Your task to perform on an android device: move an email to a new category in the gmail app Image 0: 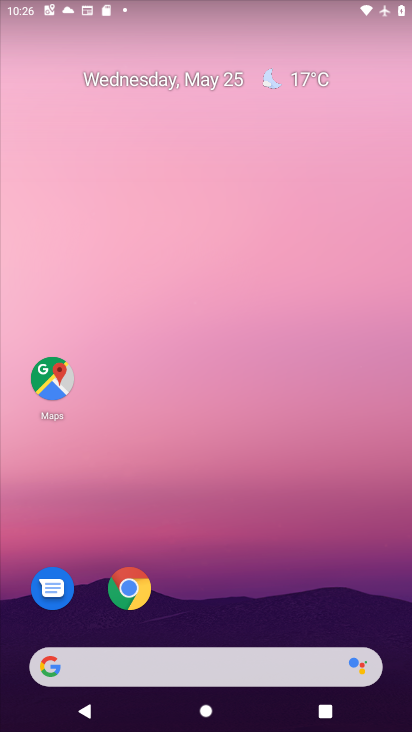
Step 0: drag from (377, 538) to (356, 189)
Your task to perform on an android device: move an email to a new category in the gmail app Image 1: 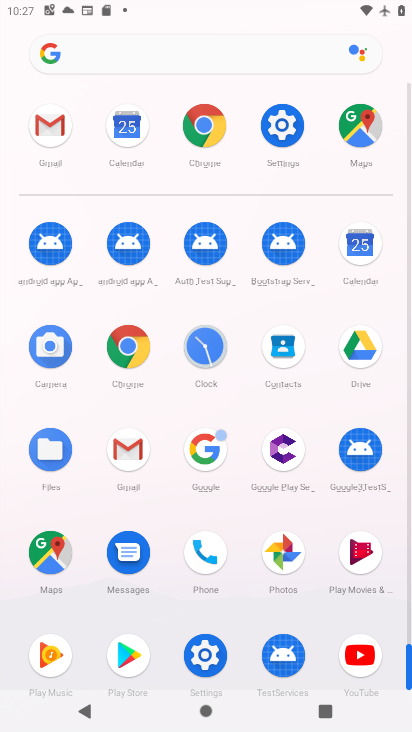
Step 1: click (134, 456)
Your task to perform on an android device: move an email to a new category in the gmail app Image 2: 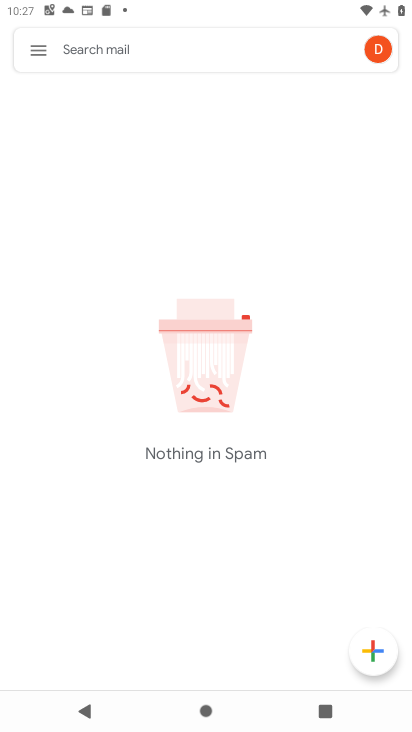
Step 2: click (39, 56)
Your task to perform on an android device: move an email to a new category in the gmail app Image 3: 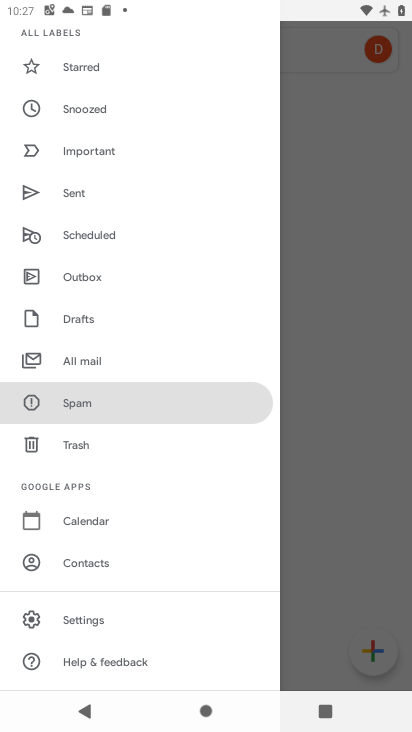
Step 3: drag from (206, 552) to (199, 400)
Your task to perform on an android device: move an email to a new category in the gmail app Image 4: 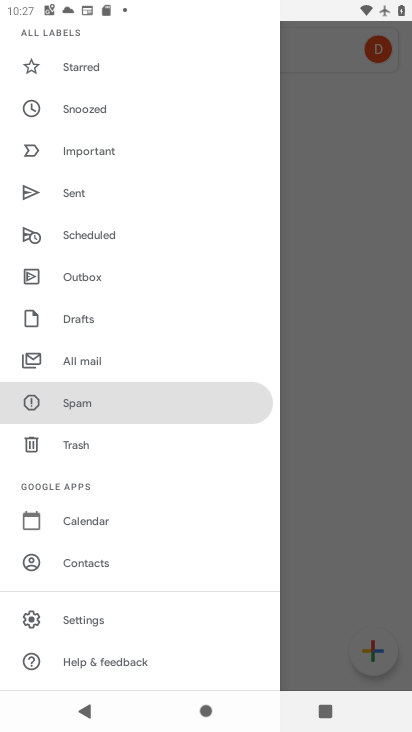
Step 4: drag from (184, 229) to (187, 369)
Your task to perform on an android device: move an email to a new category in the gmail app Image 5: 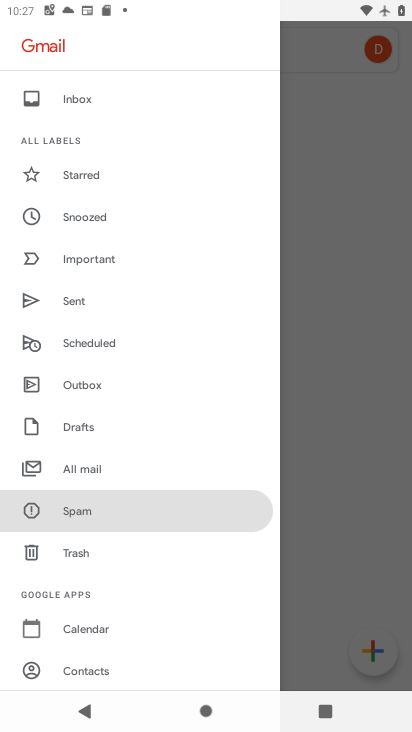
Step 5: drag from (173, 192) to (191, 339)
Your task to perform on an android device: move an email to a new category in the gmail app Image 6: 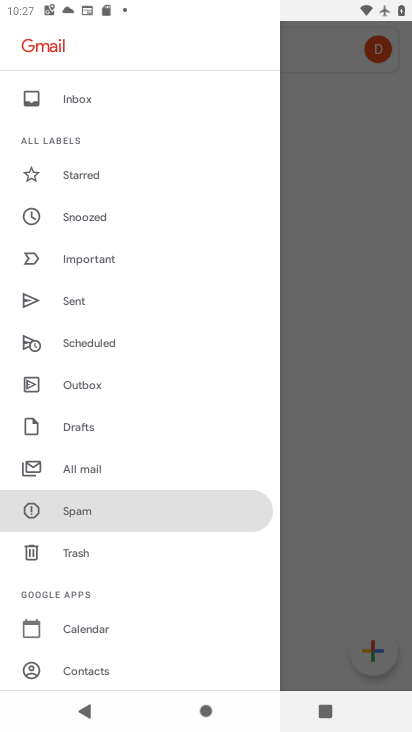
Step 6: click (84, 104)
Your task to perform on an android device: move an email to a new category in the gmail app Image 7: 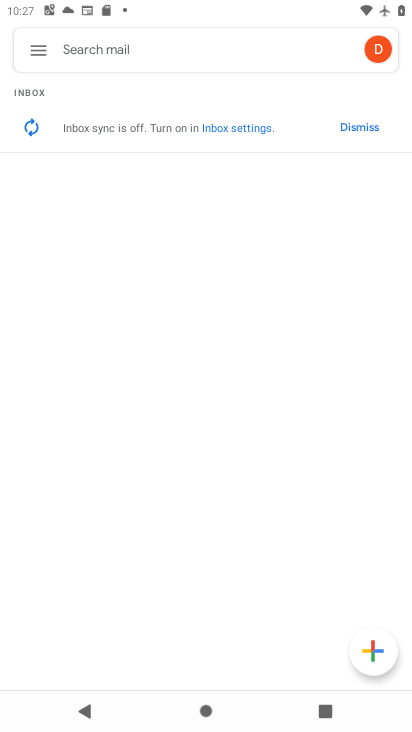
Step 7: task complete